Your task to perform on an android device: Open display settings Image 0: 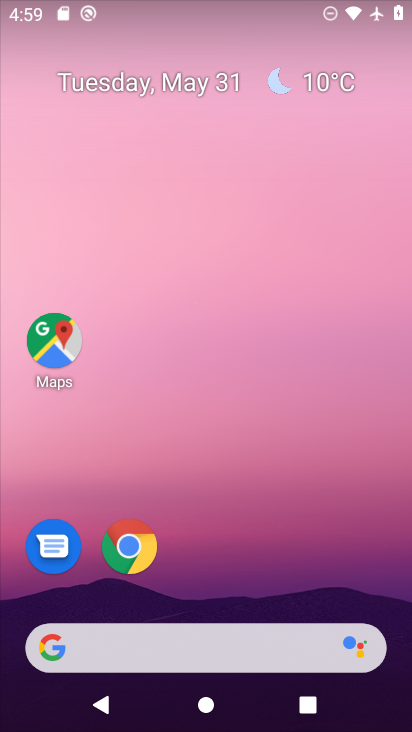
Step 0: drag from (311, 494) to (242, 18)
Your task to perform on an android device: Open display settings Image 1: 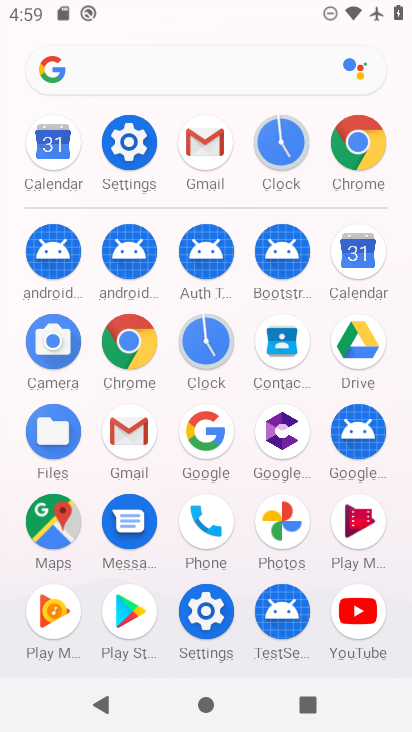
Step 1: click (126, 123)
Your task to perform on an android device: Open display settings Image 2: 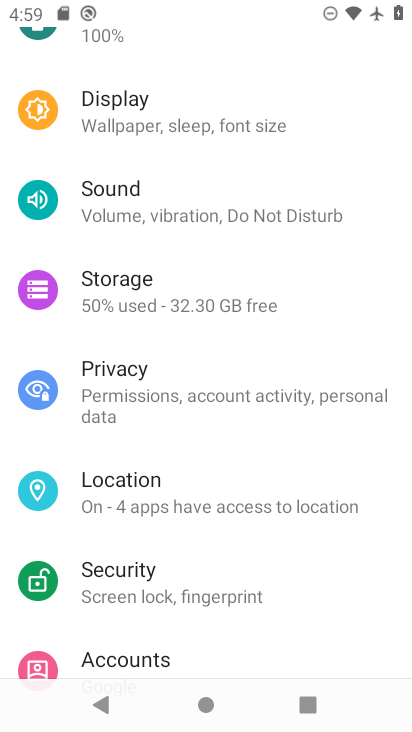
Step 2: click (181, 124)
Your task to perform on an android device: Open display settings Image 3: 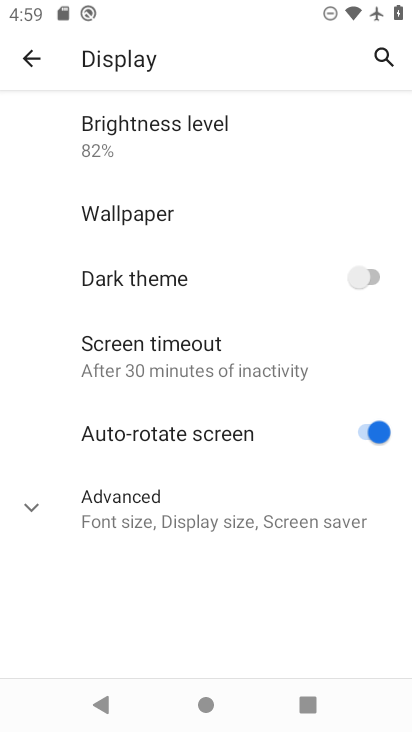
Step 3: task complete